Your task to perform on an android device: Go to Reddit.com Image 0: 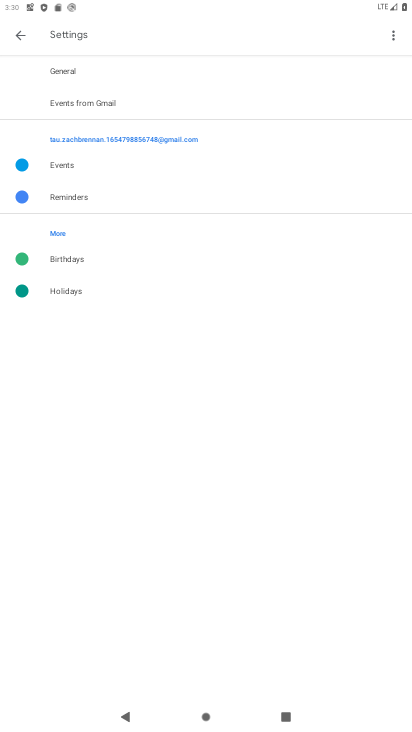
Step 0: press home button
Your task to perform on an android device: Go to Reddit.com Image 1: 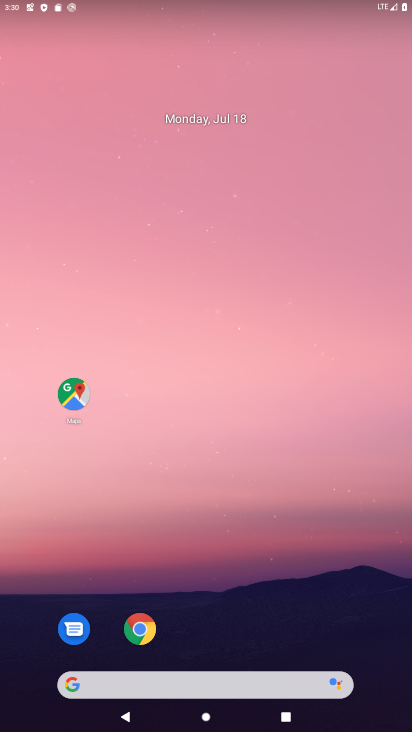
Step 1: click (137, 634)
Your task to perform on an android device: Go to Reddit.com Image 2: 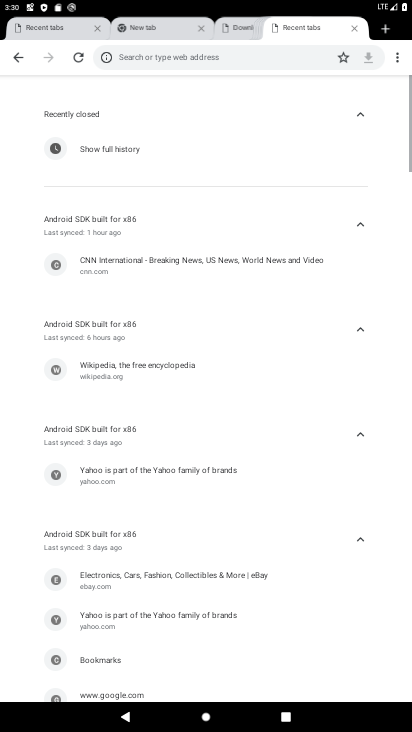
Step 2: click (383, 33)
Your task to perform on an android device: Go to Reddit.com Image 3: 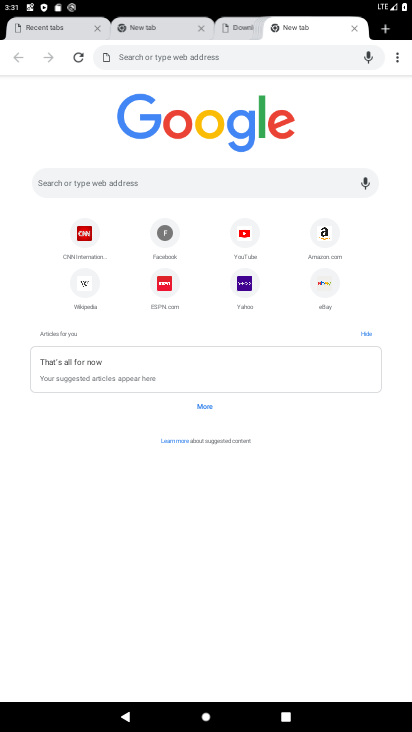
Step 3: click (129, 178)
Your task to perform on an android device: Go to Reddit.com Image 4: 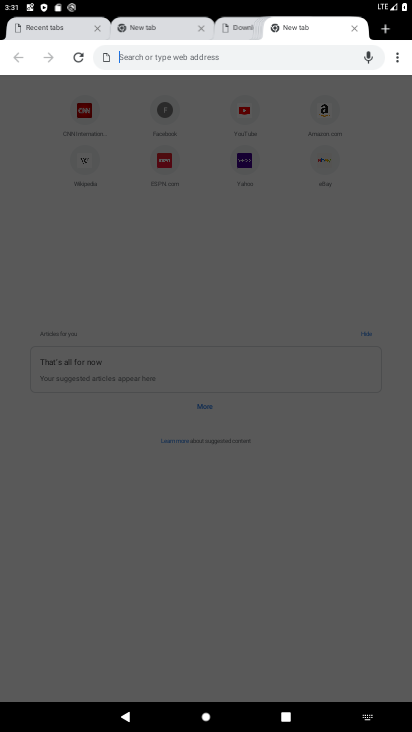
Step 4: type "Reddit.com"
Your task to perform on an android device: Go to Reddit.com Image 5: 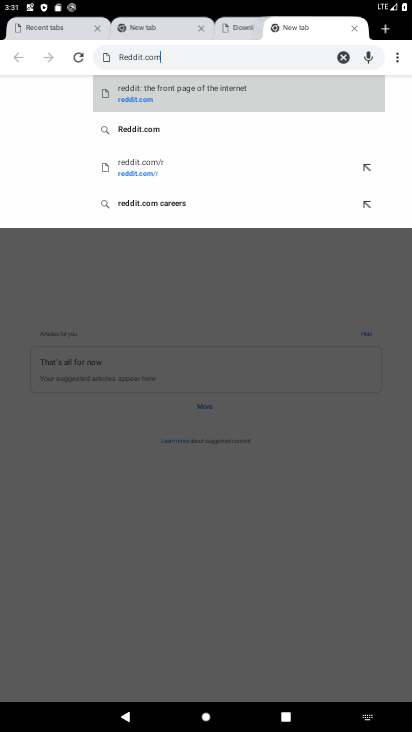
Step 5: click (201, 126)
Your task to perform on an android device: Go to Reddit.com Image 6: 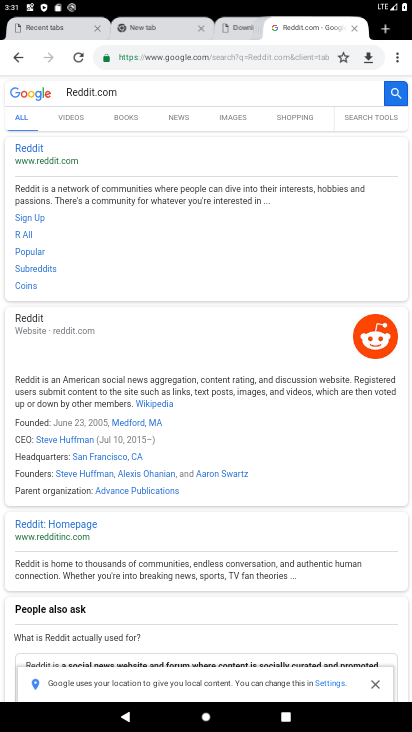
Step 6: click (53, 159)
Your task to perform on an android device: Go to Reddit.com Image 7: 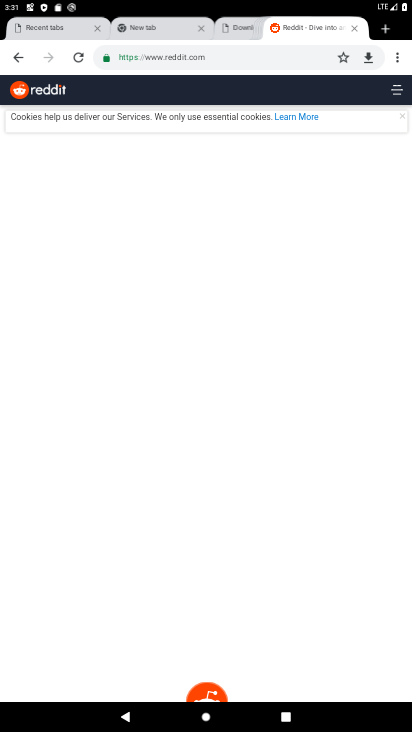
Step 7: task complete